Your task to perform on an android device: What is the recent news? Image 0: 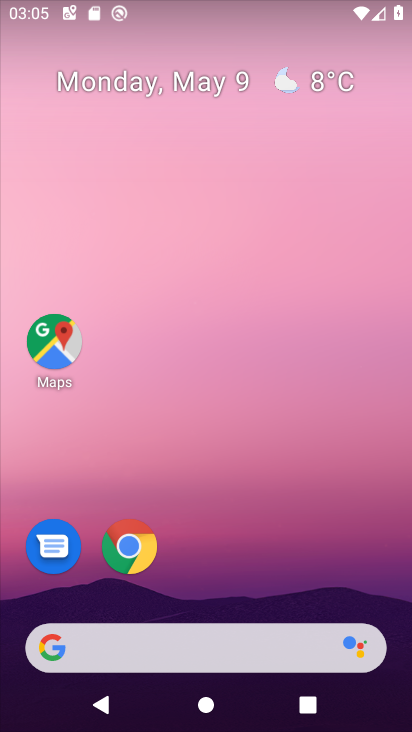
Step 0: click (273, 647)
Your task to perform on an android device: What is the recent news? Image 1: 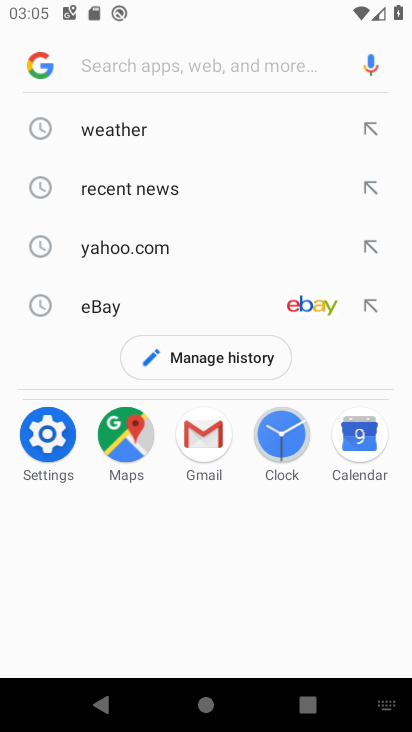
Step 1: click (76, 179)
Your task to perform on an android device: What is the recent news? Image 2: 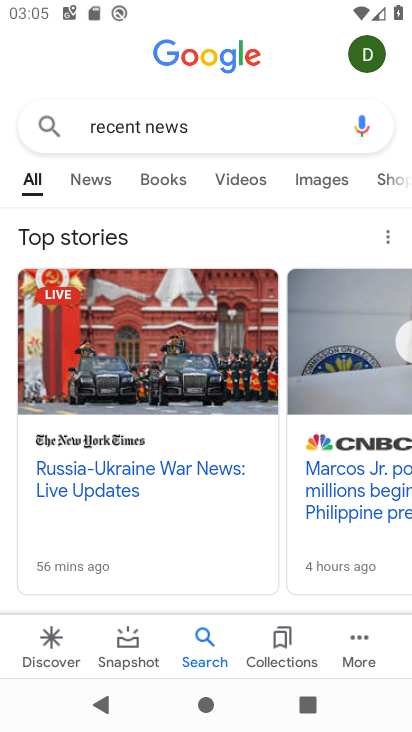
Step 2: click (80, 178)
Your task to perform on an android device: What is the recent news? Image 3: 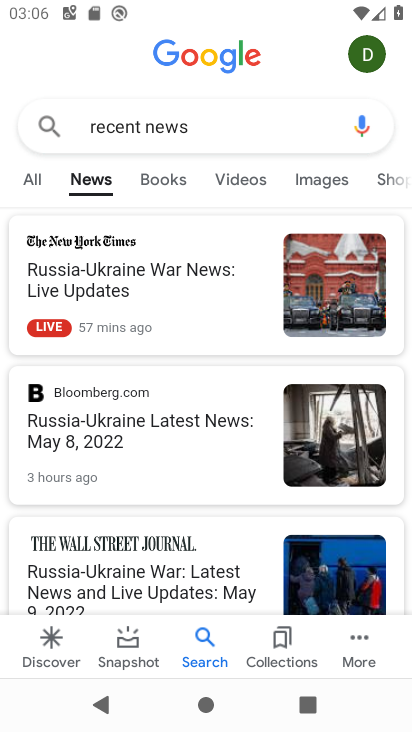
Step 3: task complete